Your task to perform on an android device: Find coffee shops on Maps Image 0: 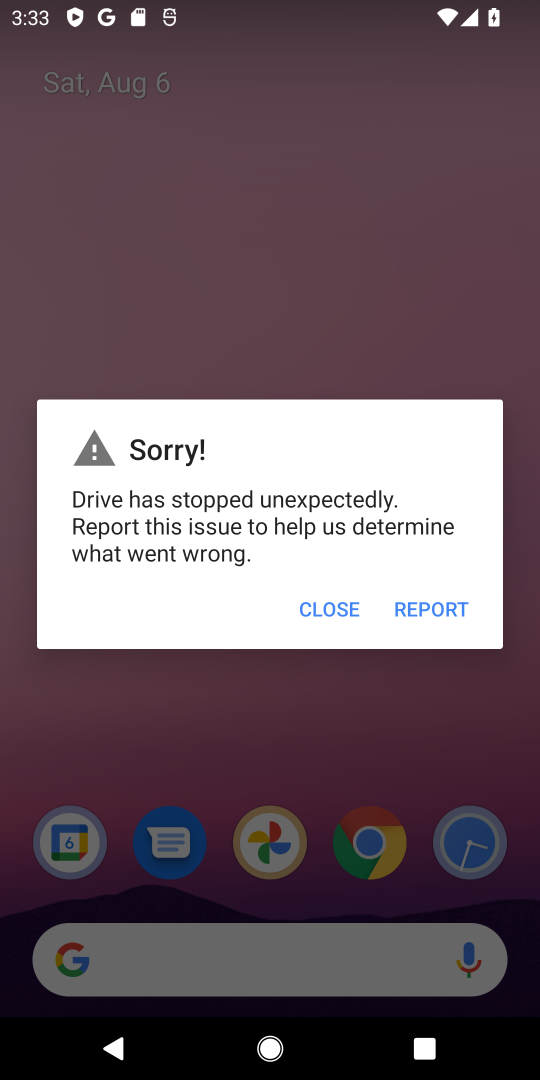
Step 0: press home button
Your task to perform on an android device: Find coffee shops on Maps Image 1: 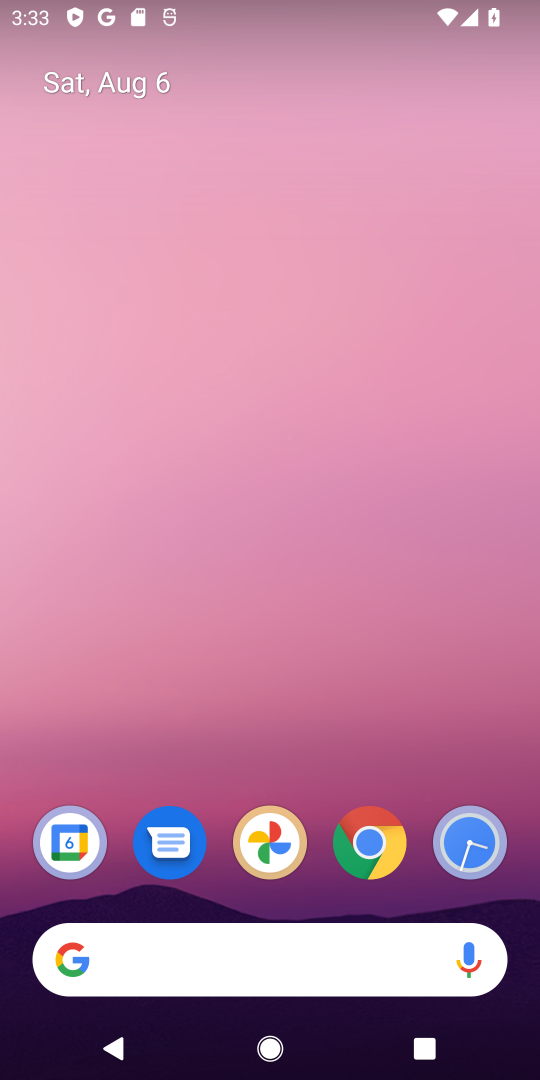
Step 1: drag from (490, 864) to (392, 253)
Your task to perform on an android device: Find coffee shops on Maps Image 2: 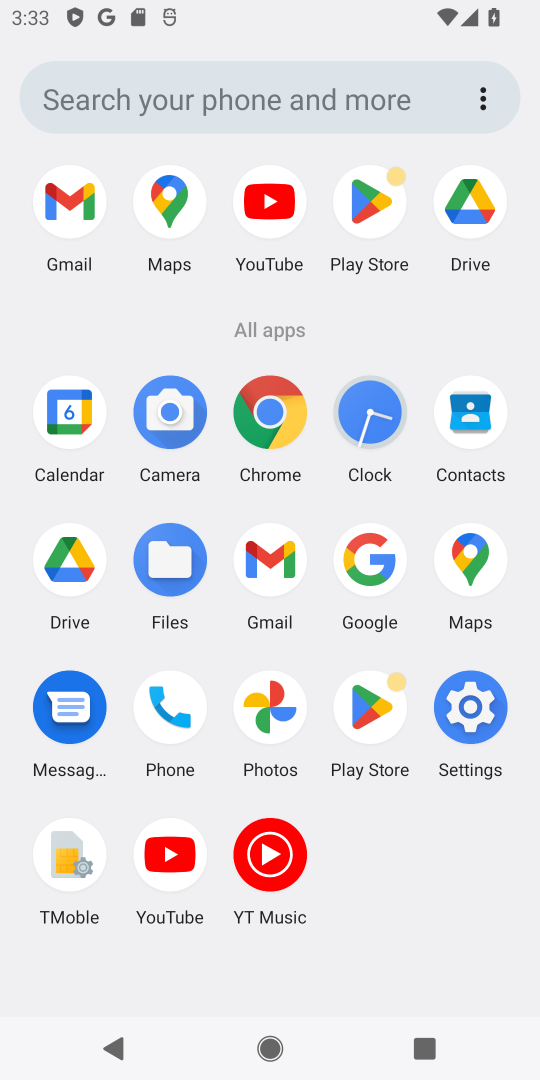
Step 2: click (184, 206)
Your task to perform on an android device: Find coffee shops on Maps Image 3: 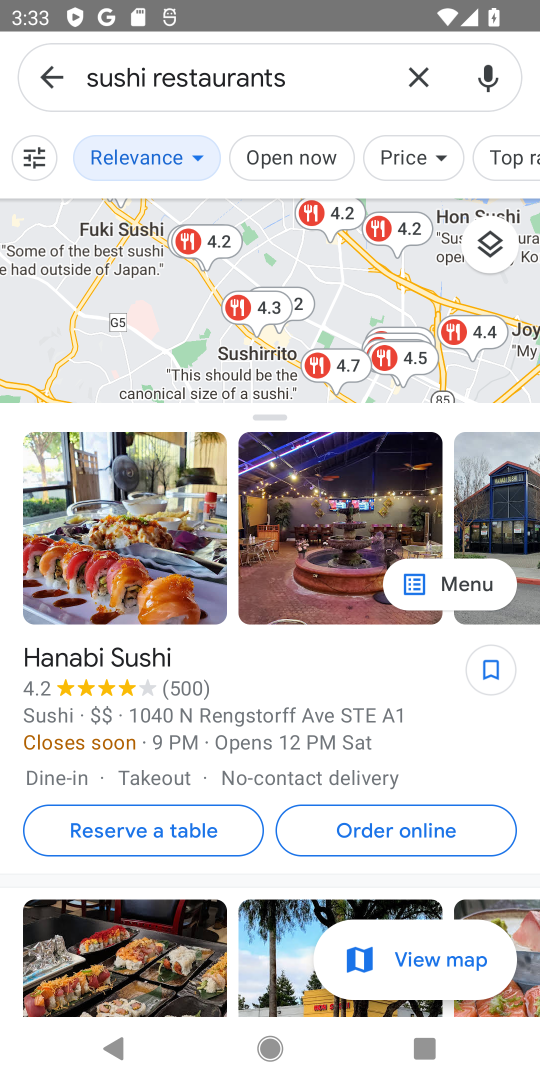
Step 3: click (407, 80)
Your task to perform on an android device: Find coffee shops on Maps Image 4: 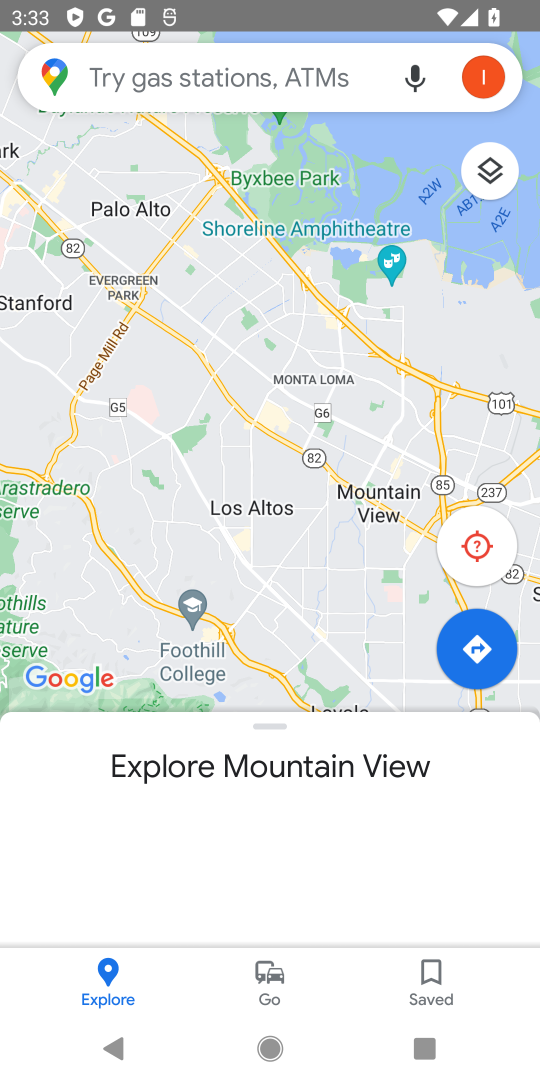
Step 4: click (244, 76)
Your task to perform on an android device: Find coffee shops on Maps Image 5: 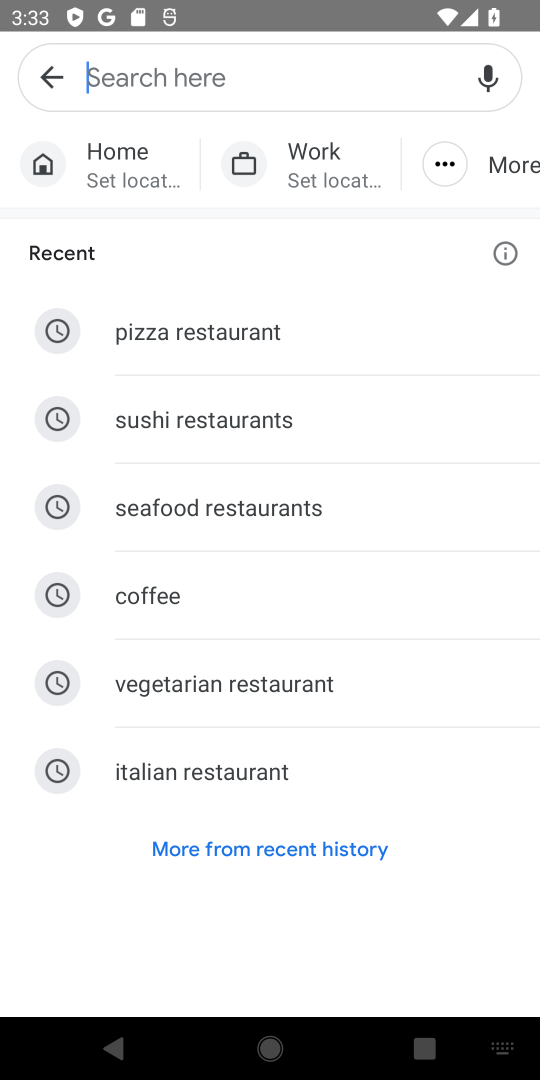
Step 5: type "coffee shops "
Your task to perform on an android device: Find coffee shops on Maps Image 6: 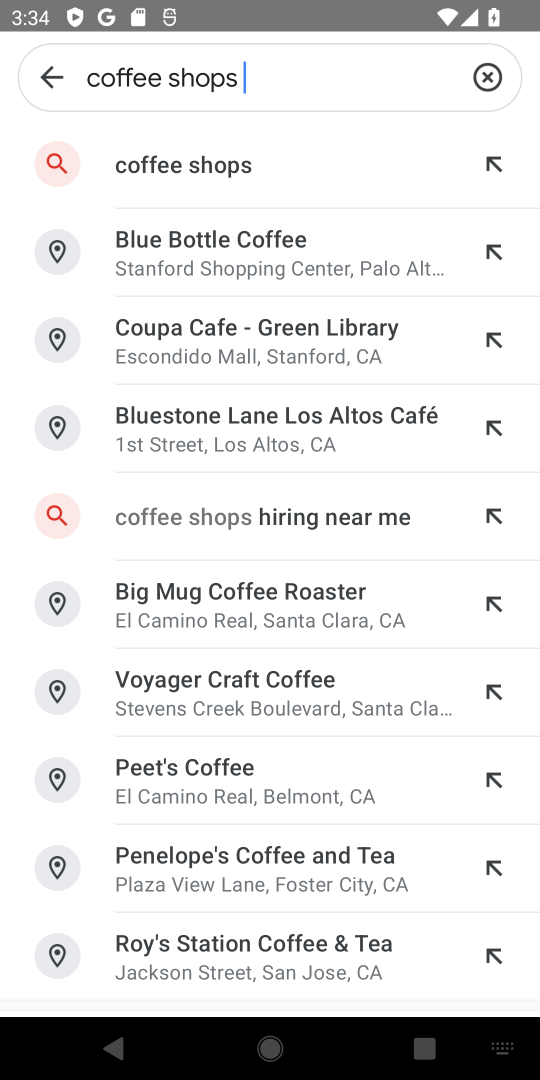
Step 6: click (120, 157)
Your task to perform on an android device: Find coffee shops on Maps Image 7: 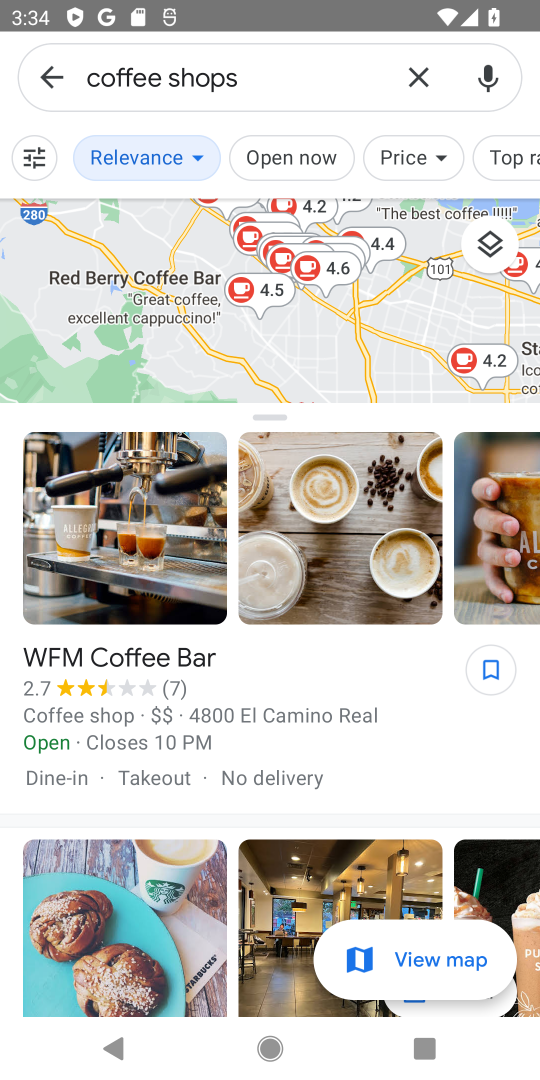
Step 7: task complete